Your task to perform on an android device: clear history in the chrome app Image 0: 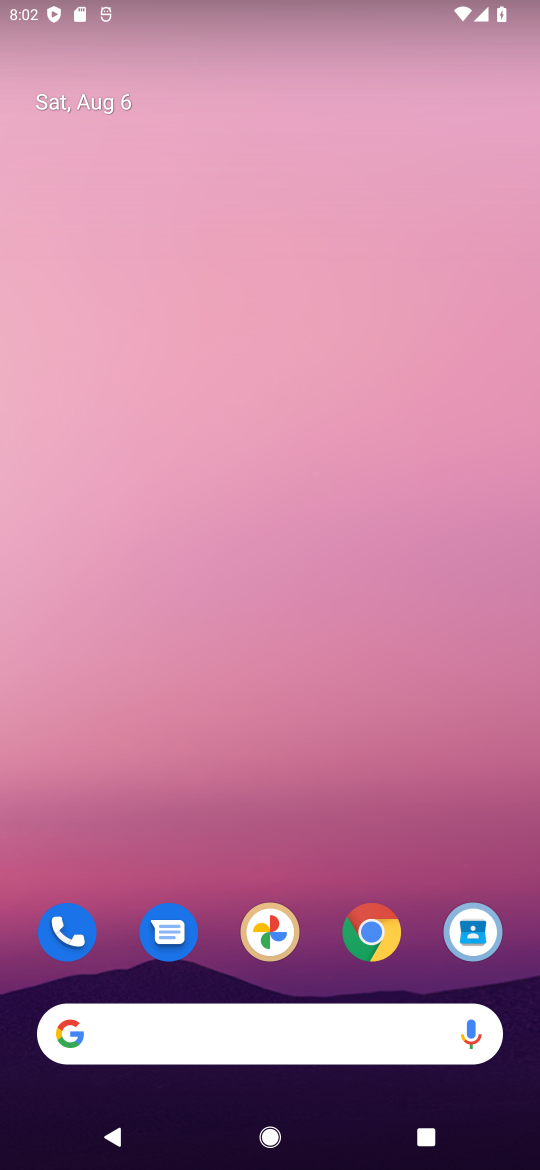
Step 0: click (363, 937)
Your task to perform on an android device: clear history in the chrome app Image 1: 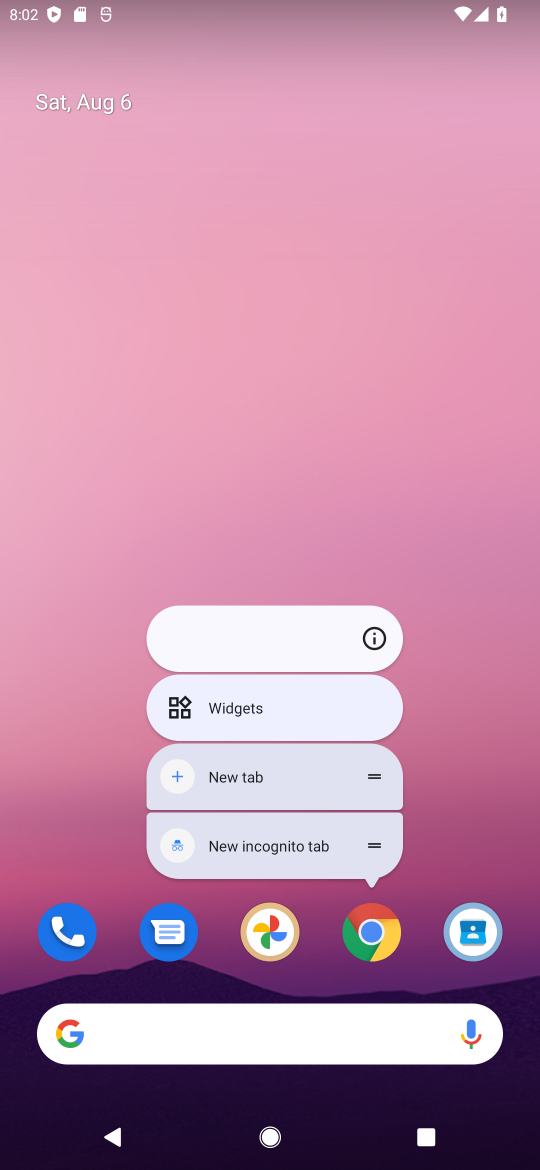
Step 1: click (363, 946)
Your task to perform on an android device: clear history in the chrome app Image 2: 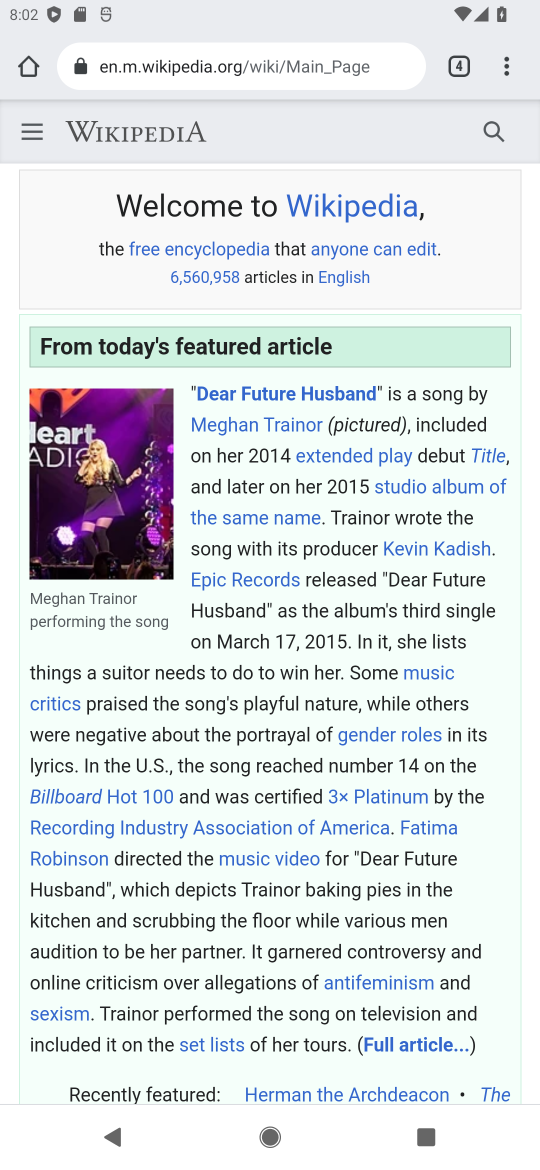
Step 2: drag from (500, 66) to (333, 333)
Your task to perform on an android device: clear history in the chrome app Image 3: 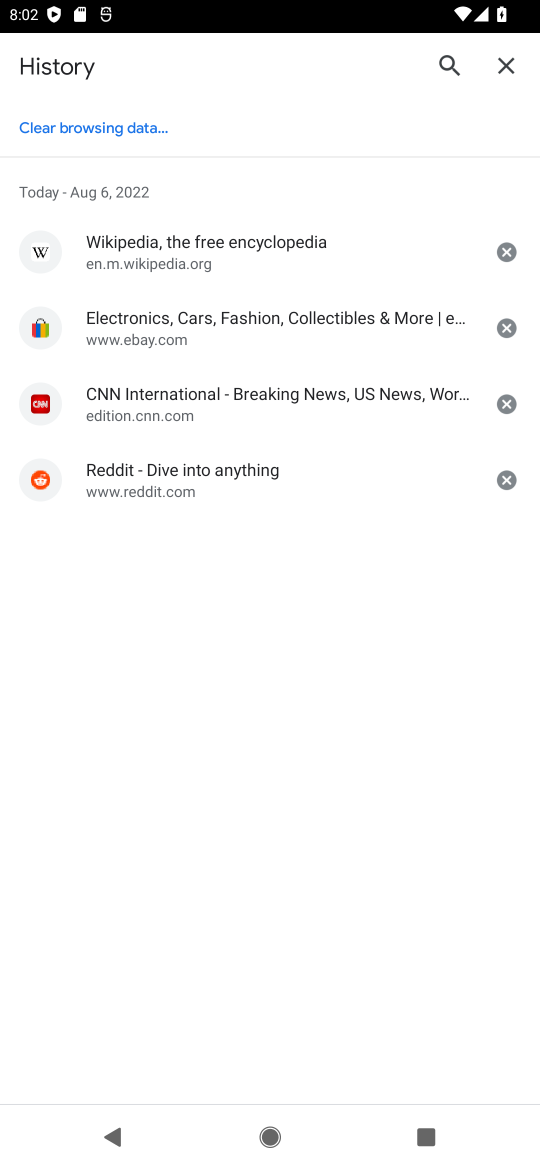
Step 3: click (97, 130)
Your task to perform on an android device: clear history in the chrome app Image 4: 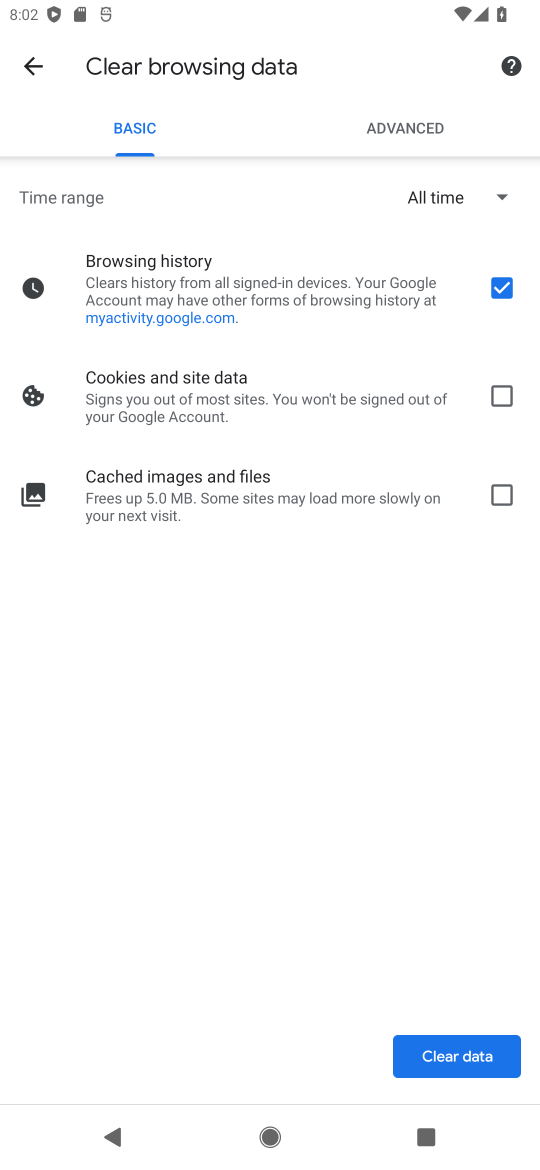
Step 4: click (501, 389)
Your task to perform on an android device: clear history in the chrome app Image 5: 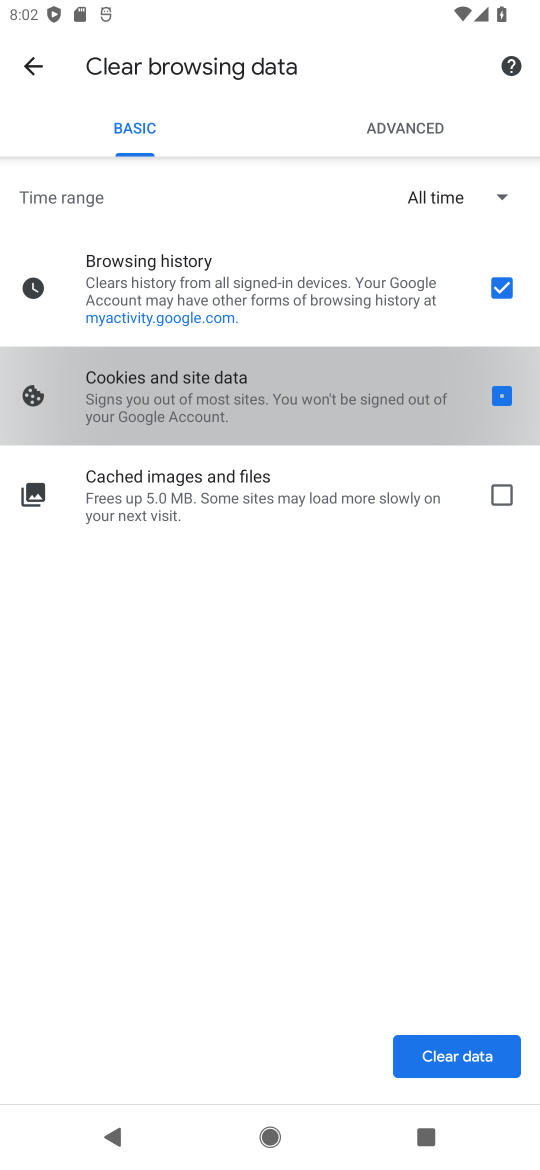
Step 5: click (507, 495)
Your task to perform on an android device: clear history in the chrome app Image 6: 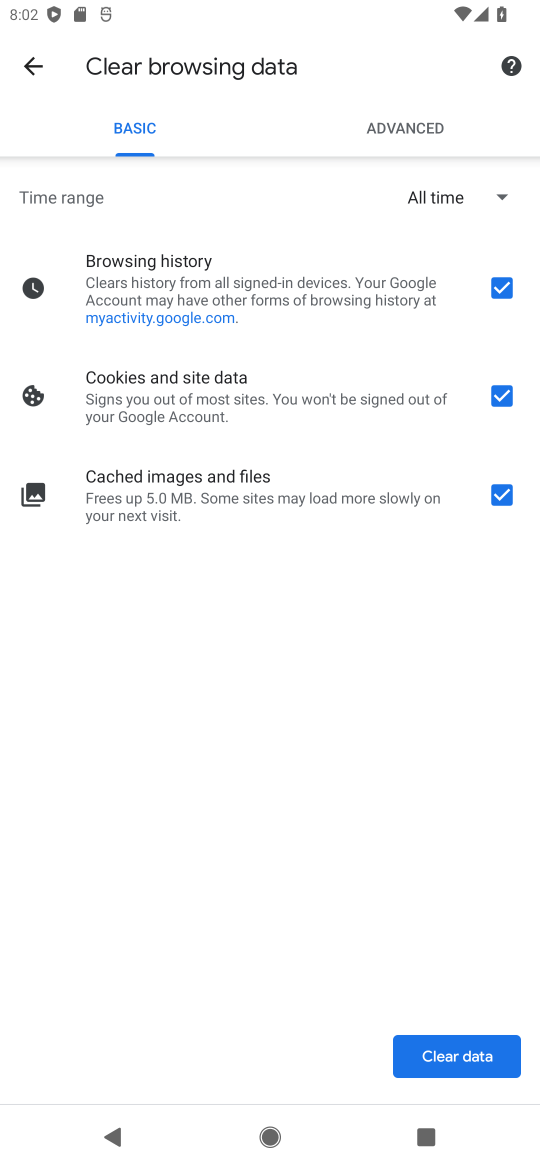
Step 6: click (470, 1048)
Your task to perform on an android device: clear history in the chrome app Image 7: 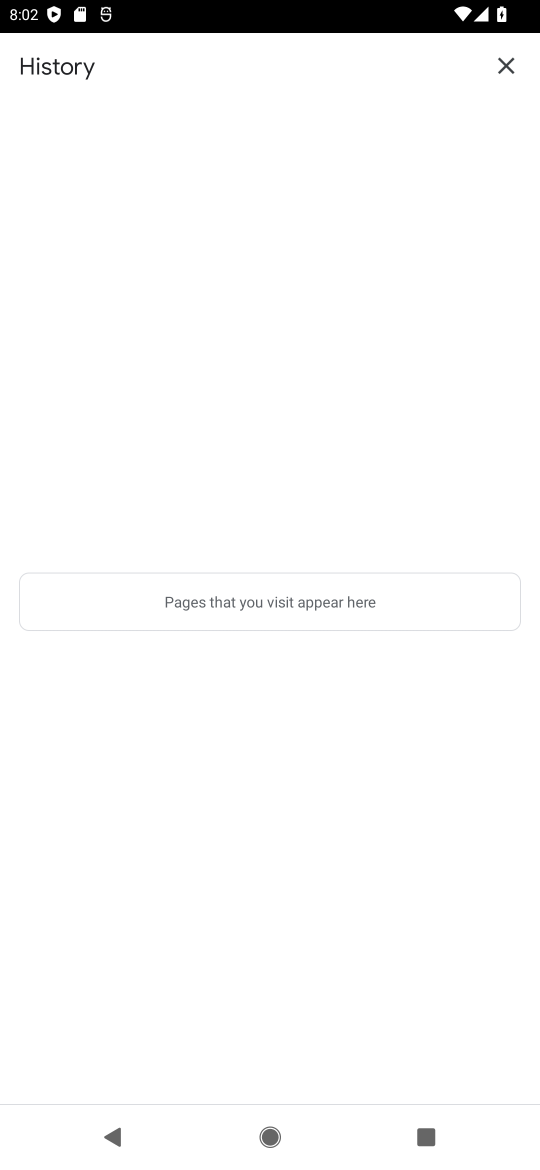
Step 7: task complete